Your task to perform on an android device: check google app version Image 0: 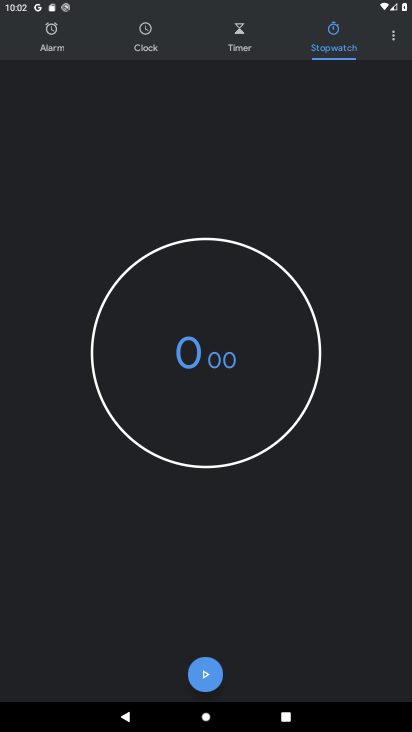
Step 0: press home button
Your task to perform on an android device: check google app version Image 1: 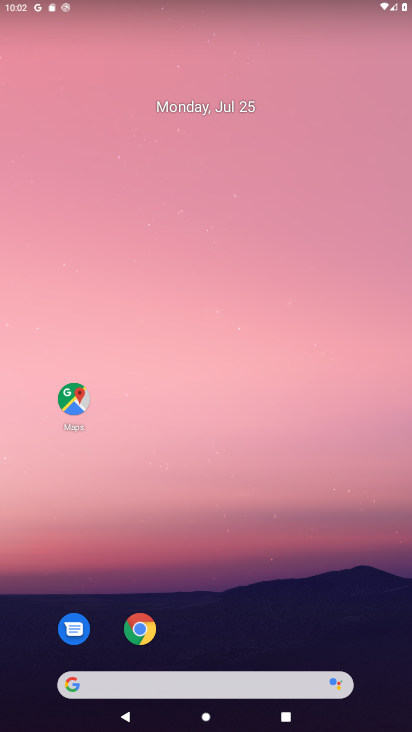
Step 1: drag from (200, 652) to (266, 17)
Your task to perform on an android device: check google app version Image 2: 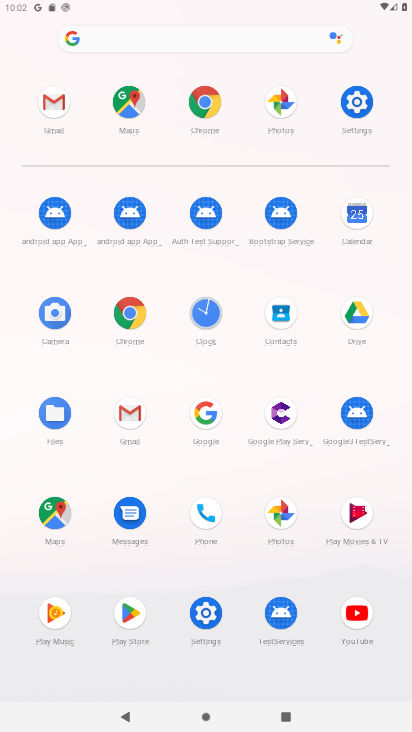
Step 2: click (349, 102)
Your task to perform on an android device: check google app version Image 3: 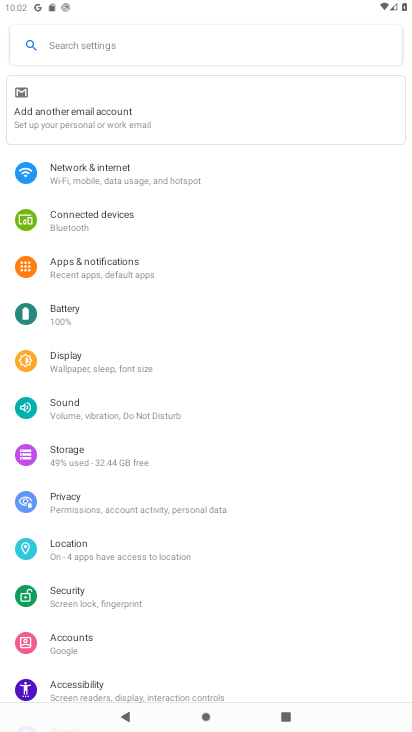
Step 3: drag from (156, 697) to (215, 113)
Your task to perform on an android device: check google app version Image 4: 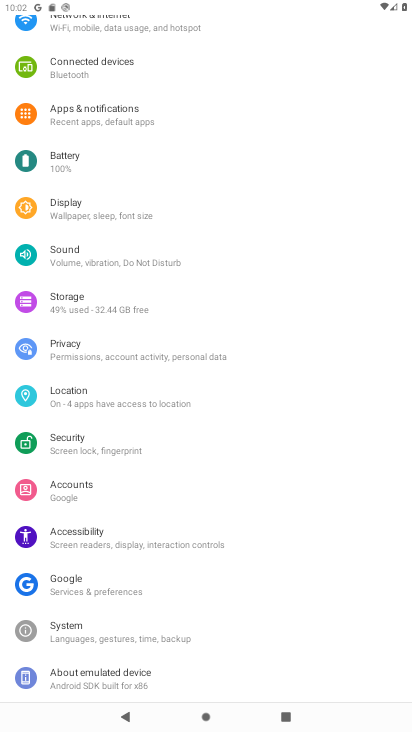
Step 4: drag from (120, 678) to (120, 123)
Your task to perform on an android device: check google app version Image 5: 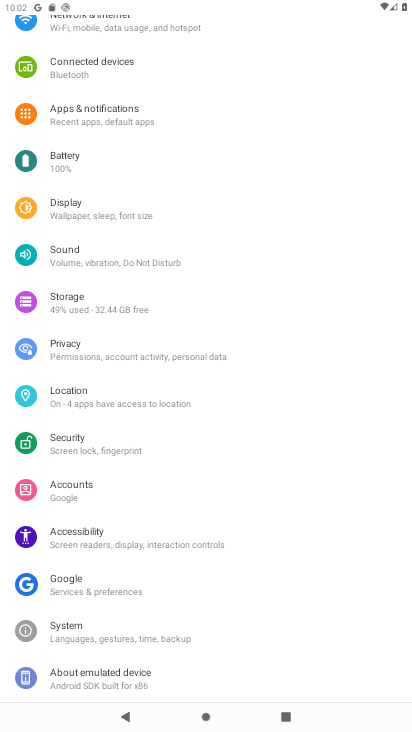
Step 5: press home button
Your task to perform on an android device: check google app version Image 6: 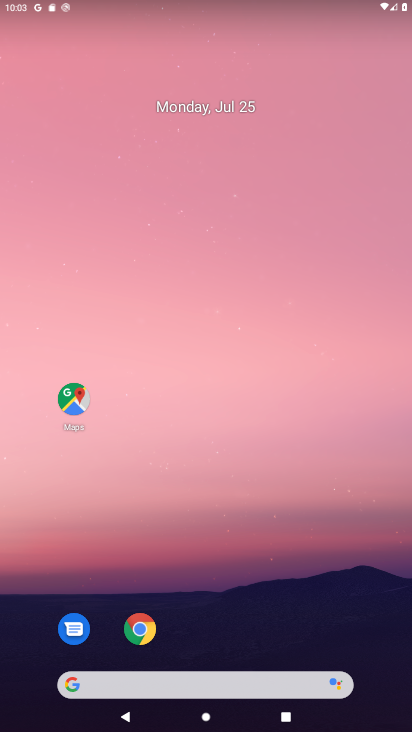
Step 6: click (77, 693)
Your task to perform on an android device: check google app version Image 7: 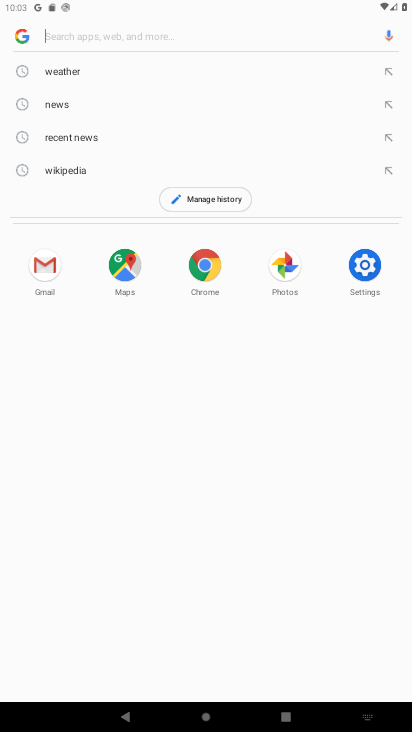
Step 7: click (17, 32)
Your task to perform on an android device: check google app version Image 8: 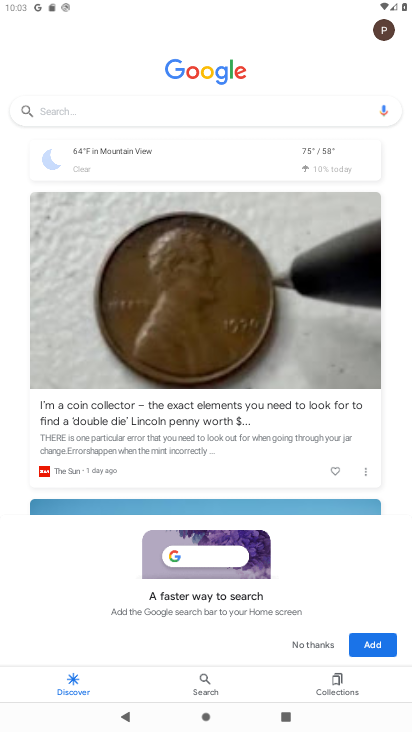
Step 8: click (378, 37)
Your task to perform on an android device: check google app version Image 9: 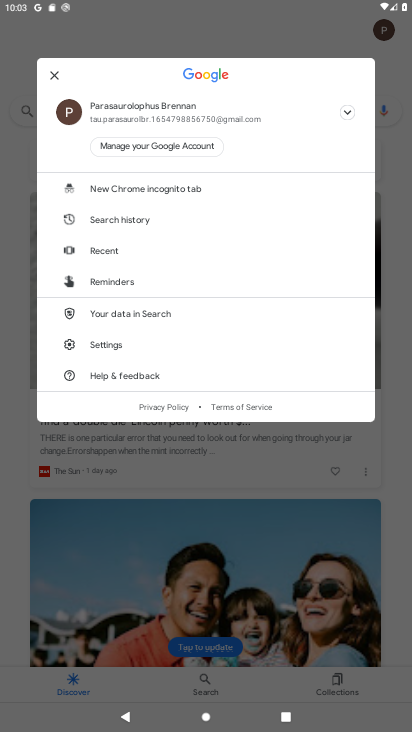
Step 9: click (141, 349)
Your task to perform on an android device: check google app version Image 10: 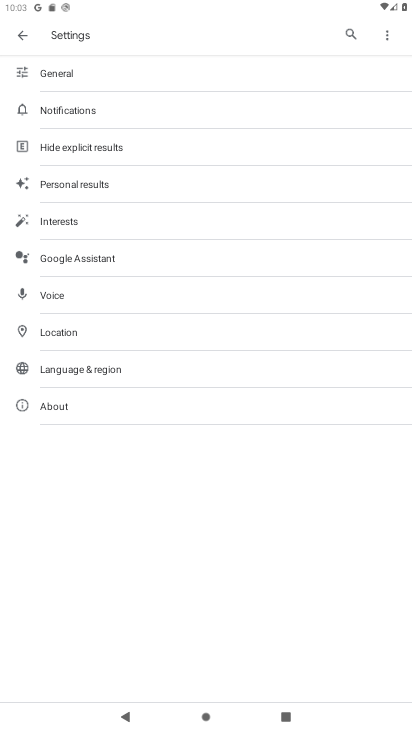
Step 10: click (115, 404)
Your task to perform on an android device: check google app version Image 11: 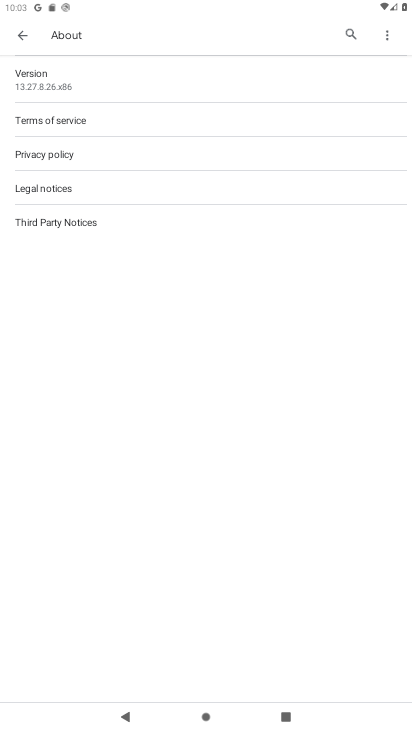
Step 11: task complete